Your task to perform on an android device: all mails in gmail Image 0: 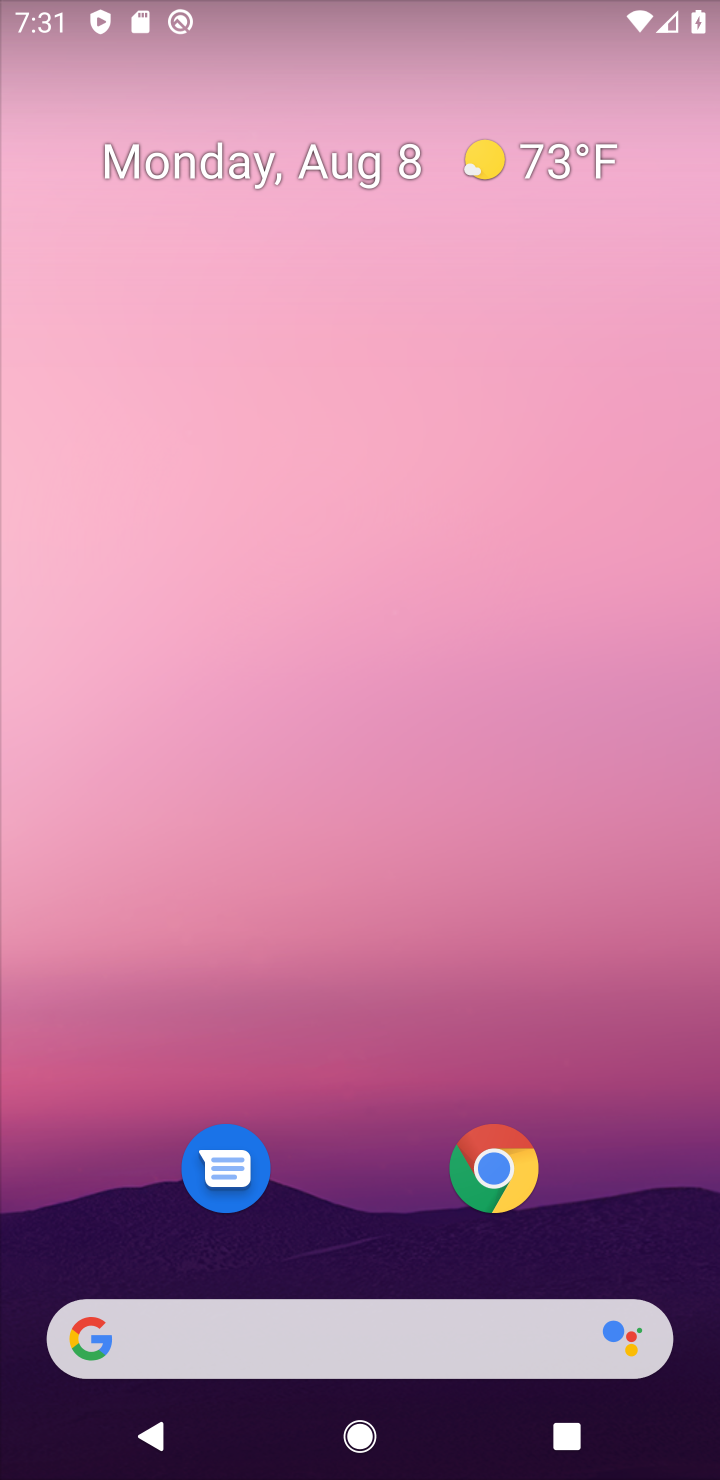
Step 0: drag from (335, 1340) to (612, 175)
Your task to perform on an android device: all mails in gmail Image 1: 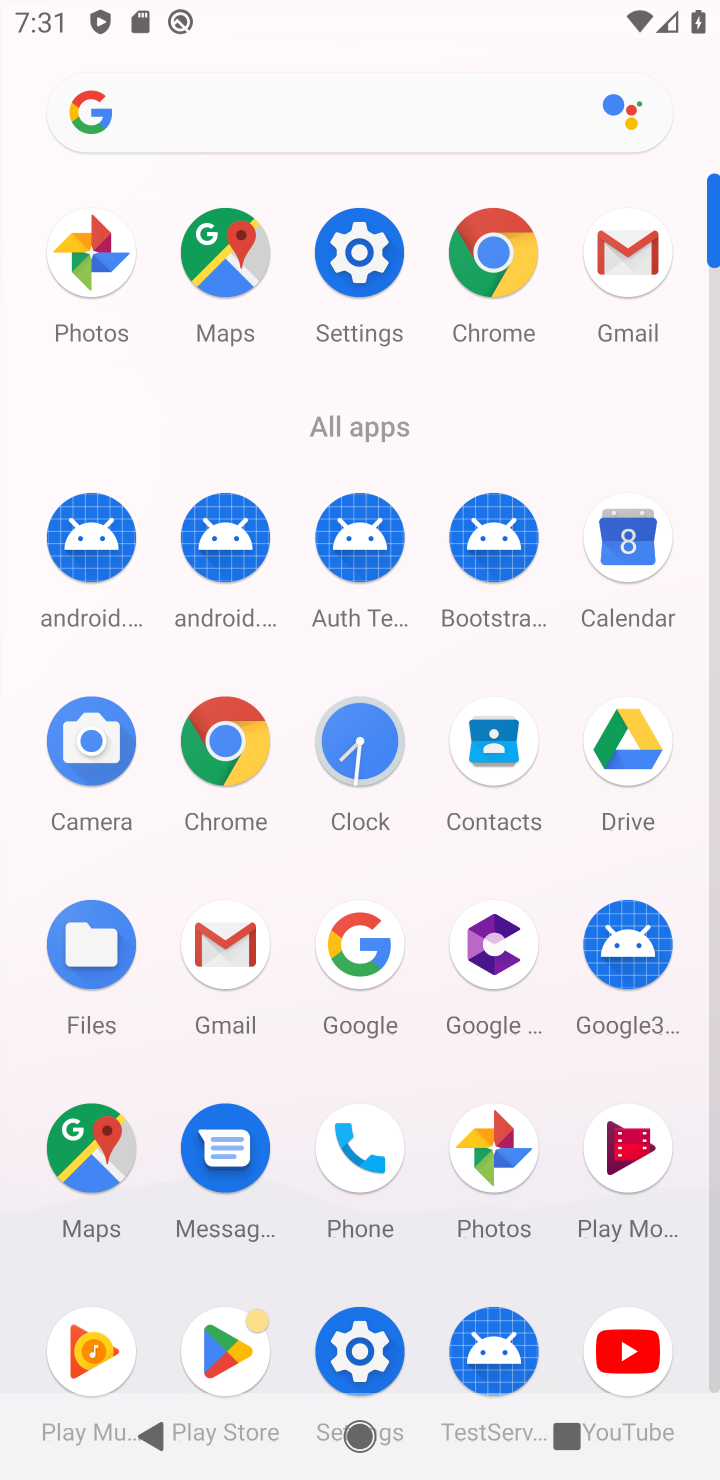
Step 1: click (637, 281)
Your task to perform on an android device: all mails in gmail Image 2: 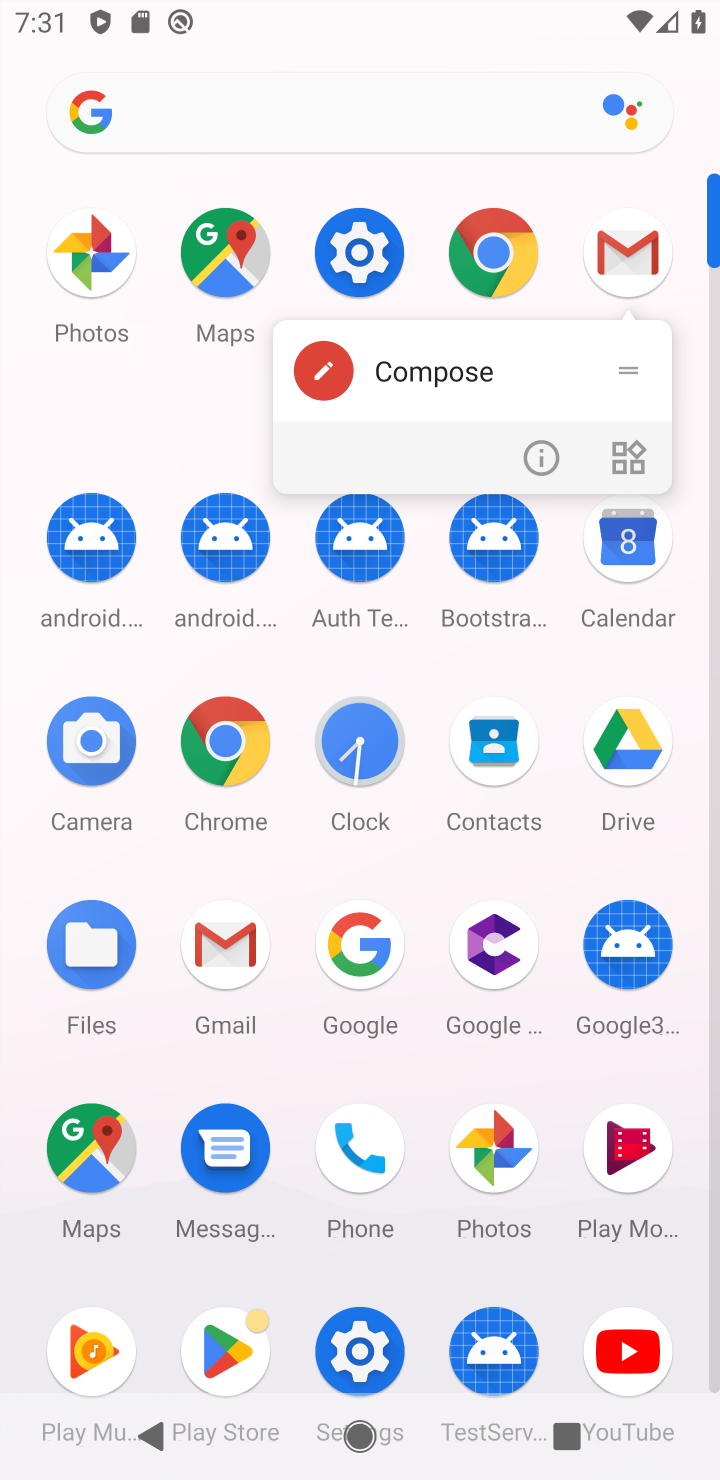
Step 2: click (639, 248)
Your task to perform on an android device: all mails in gmail Image 3: 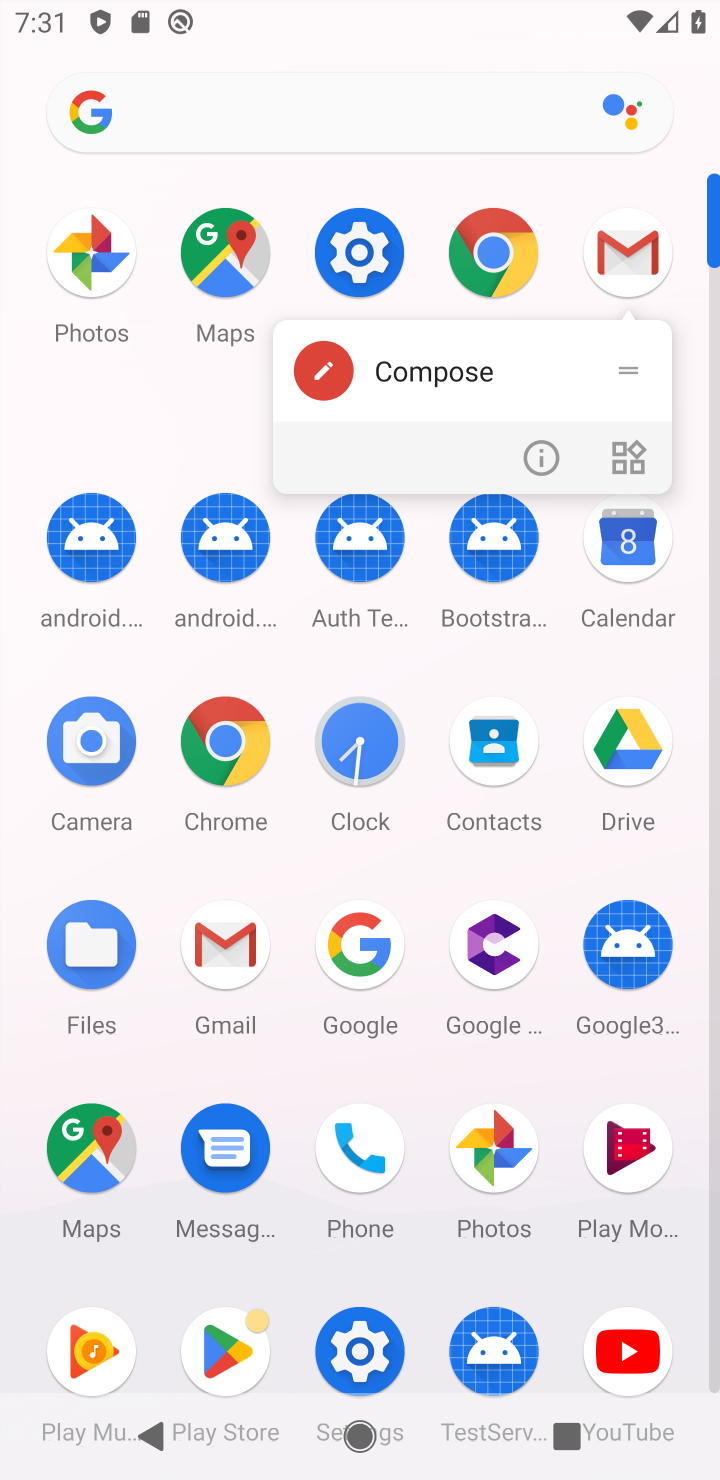
Step 3: click (639, 248)
Your task to perform on an android device: all mails in gmail Image 4: 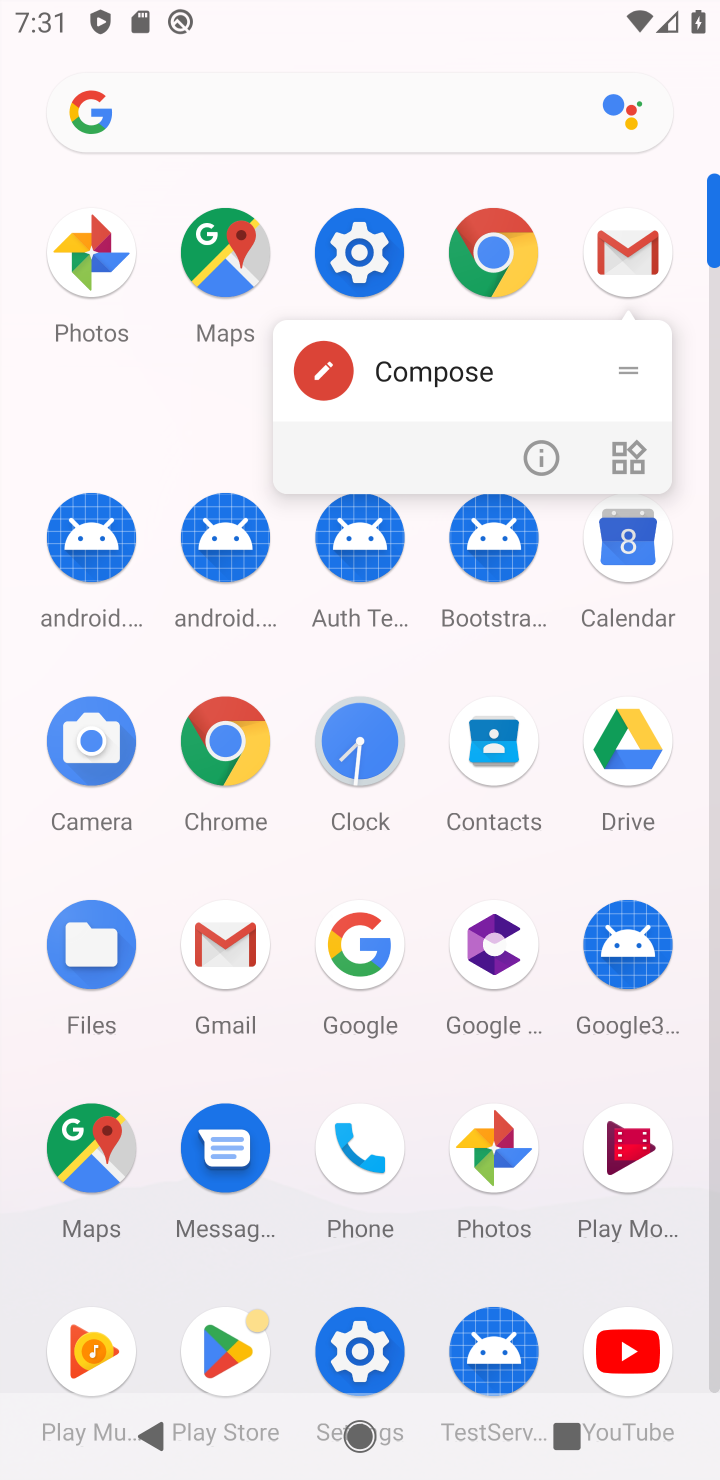
Step 4: click (639, 250)
Your task to perform on an android device: all mails in gmail Image 5: 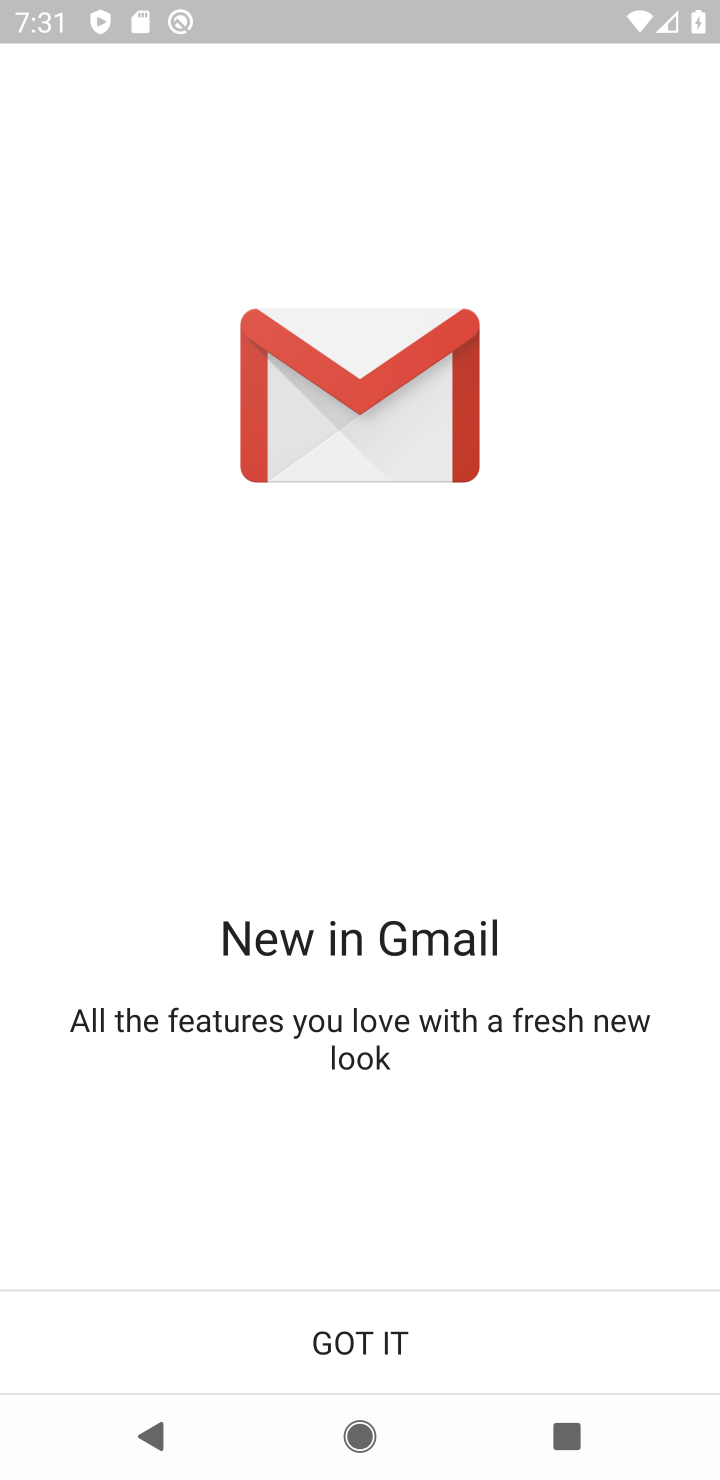
Step 5: click (364, 1362)
Your task to perform on an android device: all mails in gmail Image 6: 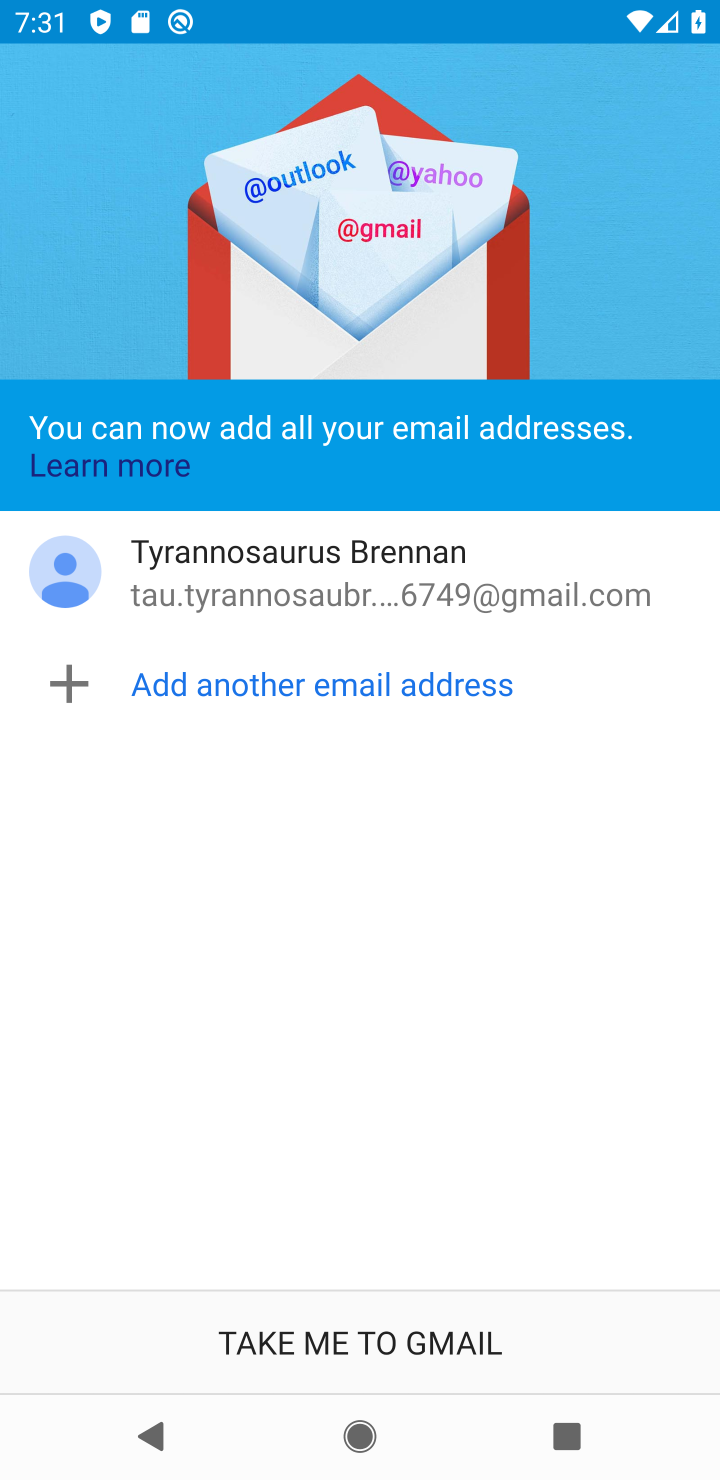
Step 6: click (318, 1339)
Your task to perform on an android device: all mails in gmail Image 7: 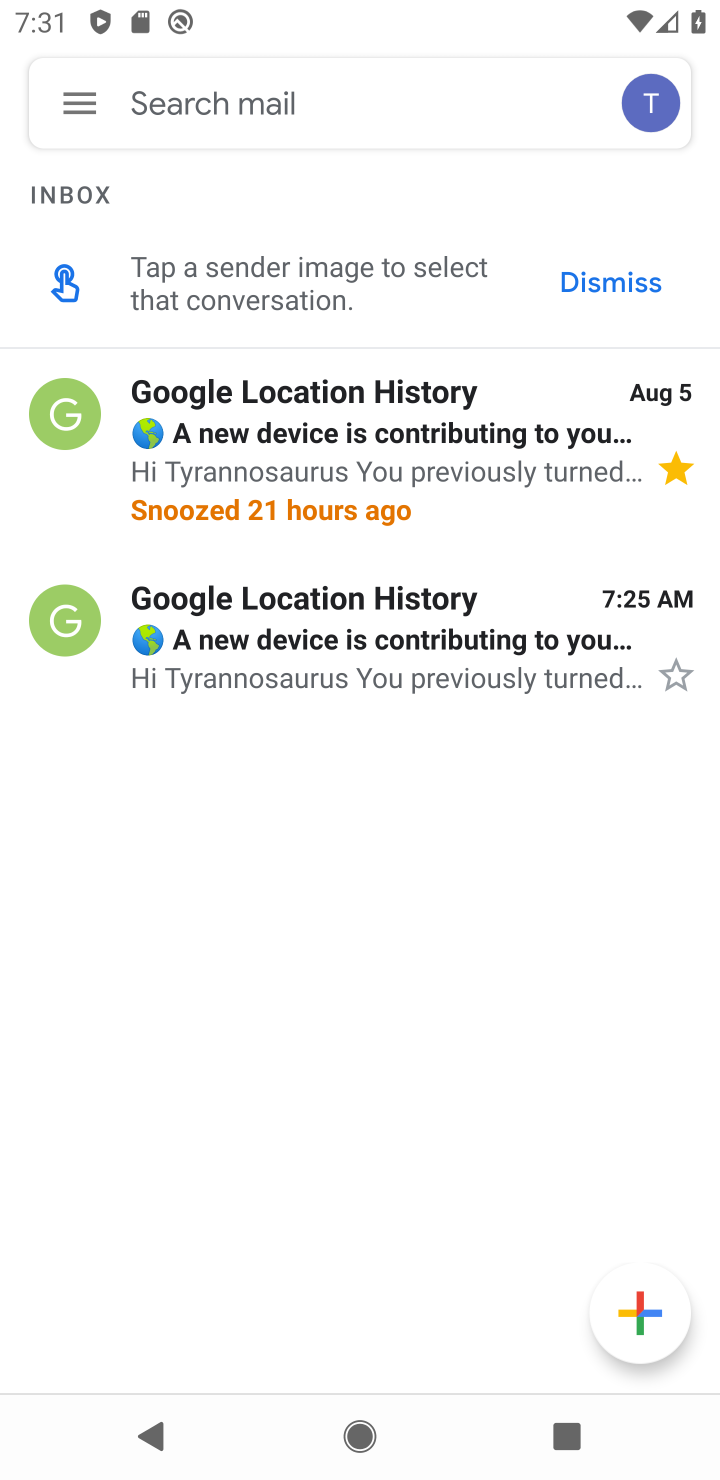
Step 7: click (83, 96)
Your task to perform on an android device: all mails in gmail Image 8: 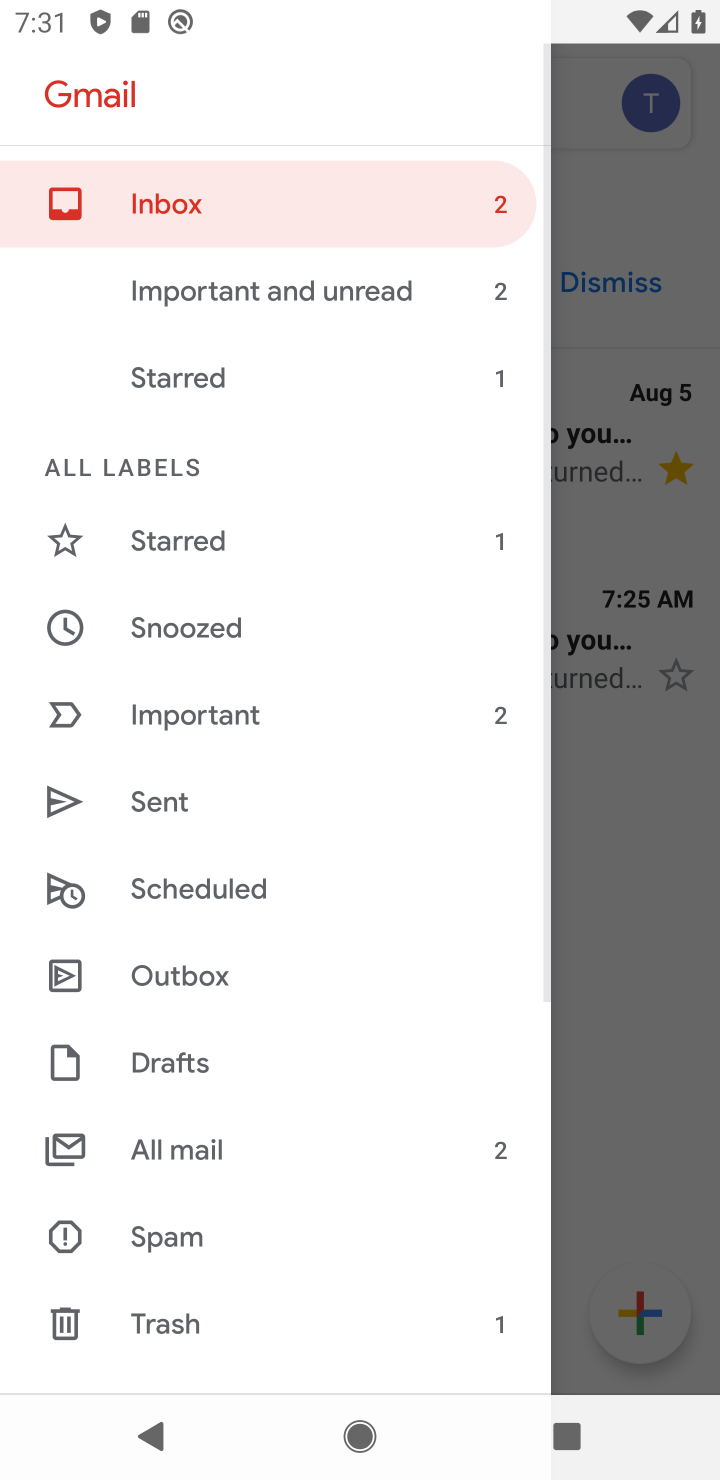
Step 8: click (201, 1158)
Your task to perform on an android device: all mails in gmail Image 9: 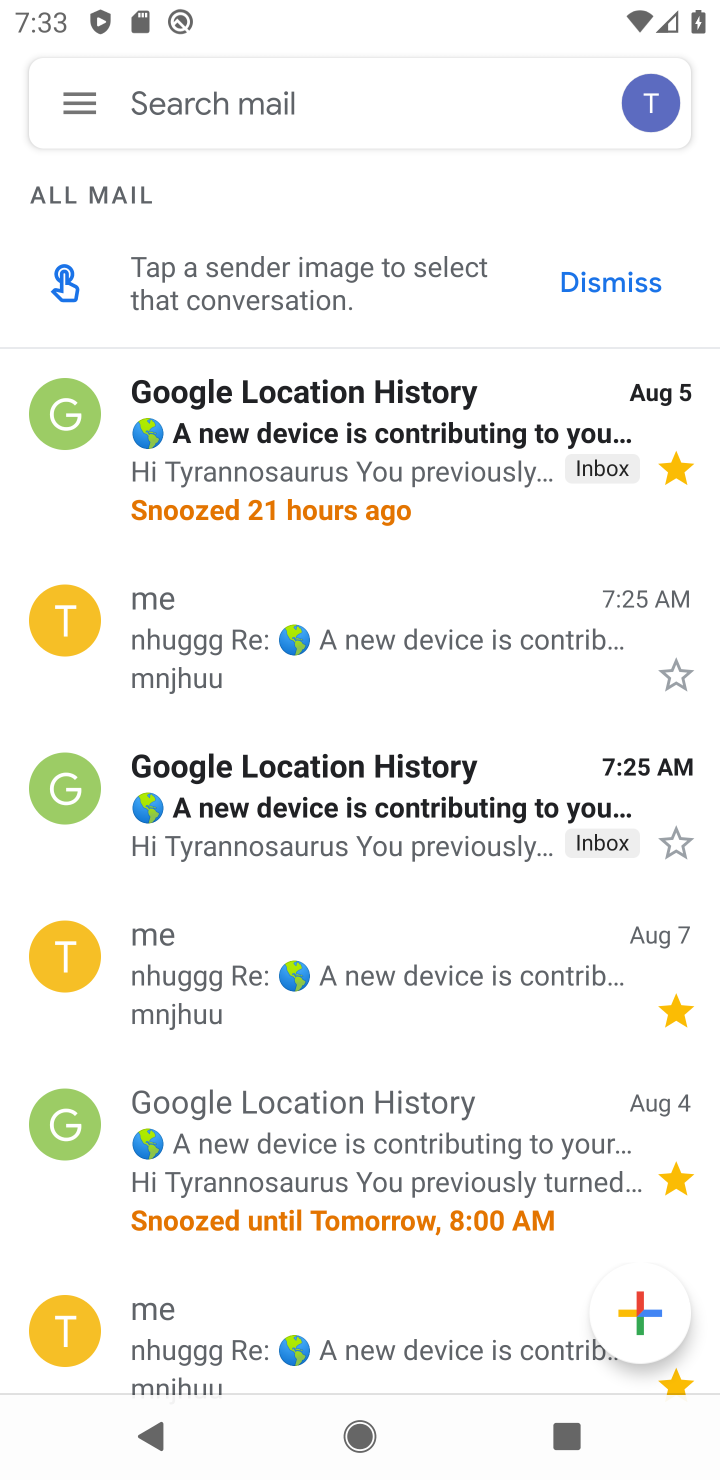
Step 9: task complete